Your task to perform on an android device: open chrome privacy settings Image 0: 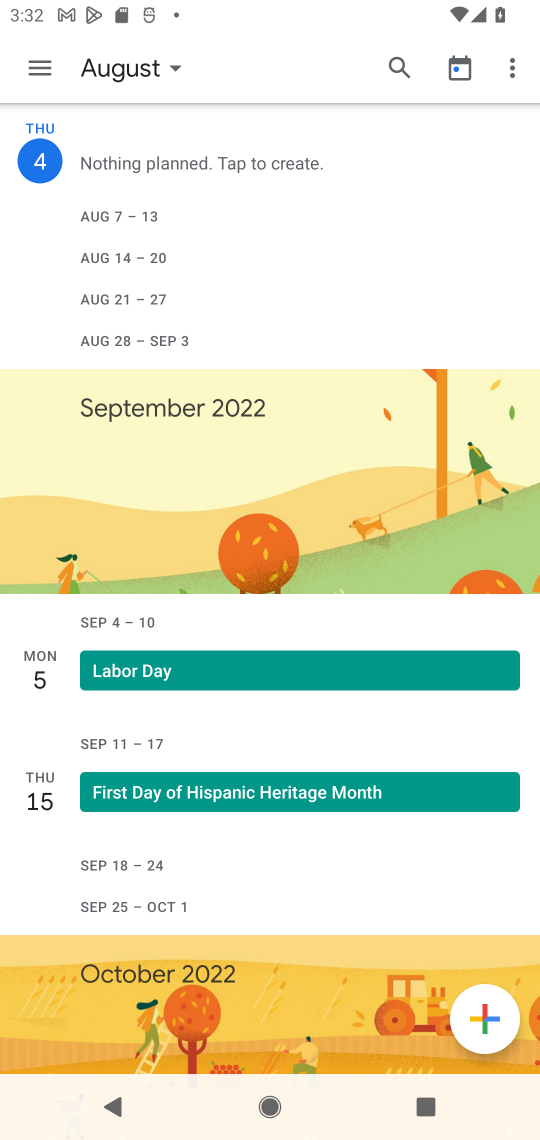
Step 0: press home button
Your task to perform on an android device: open chrome privacy settings Image 1: 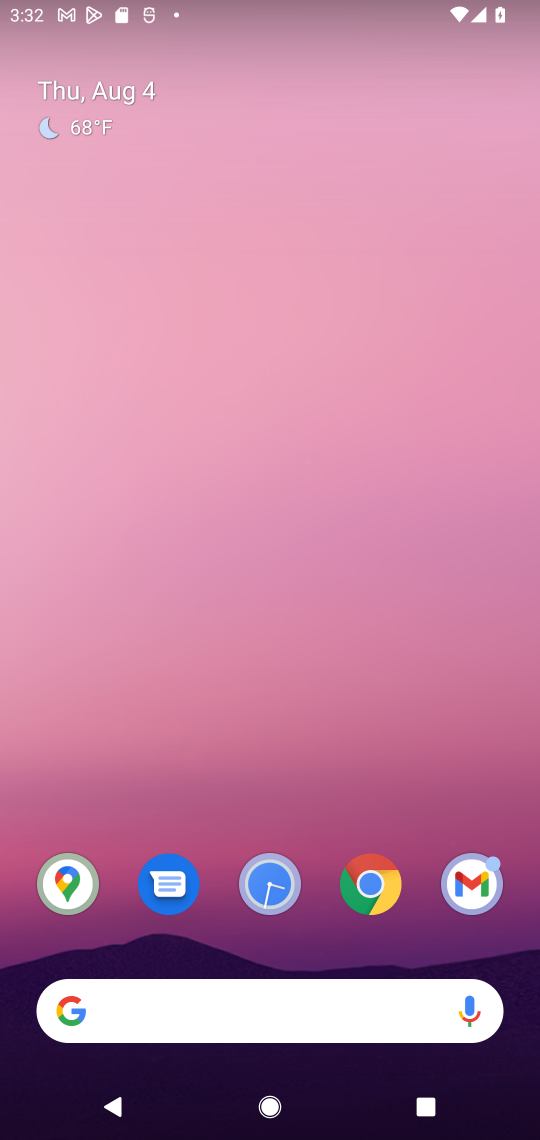
Step 1: click (375, 893)
Your task to perform on an android device: open chrome privacy settings Image 2: 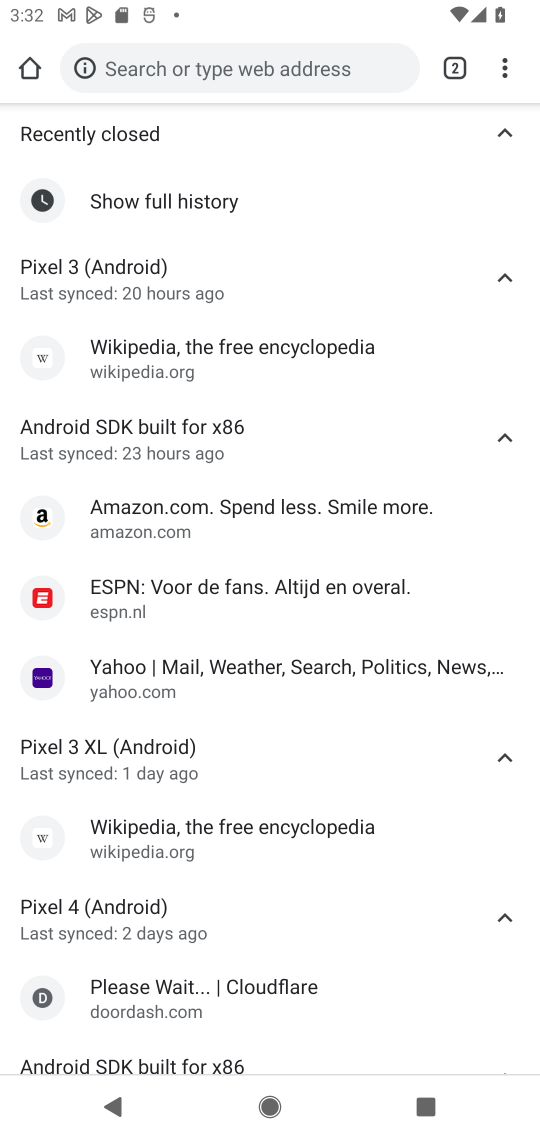
Step 2: click (499, 78)
Your task to perform on an android device: open chrome privacy settings Image 3: 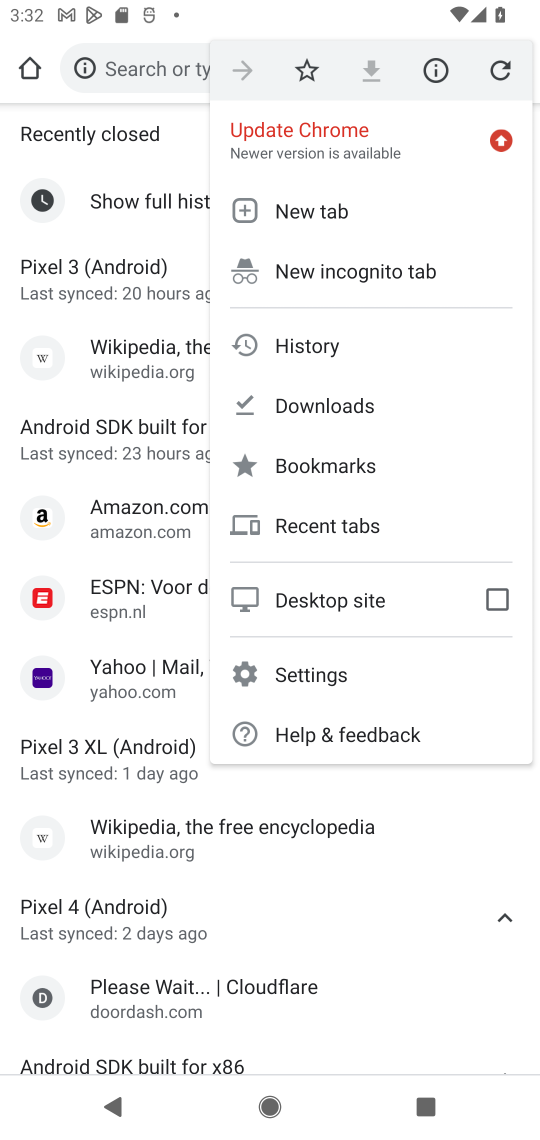
Step 3: click (290, 665)
Your task to perform on an android device: open chrome privacy settings Image 4: 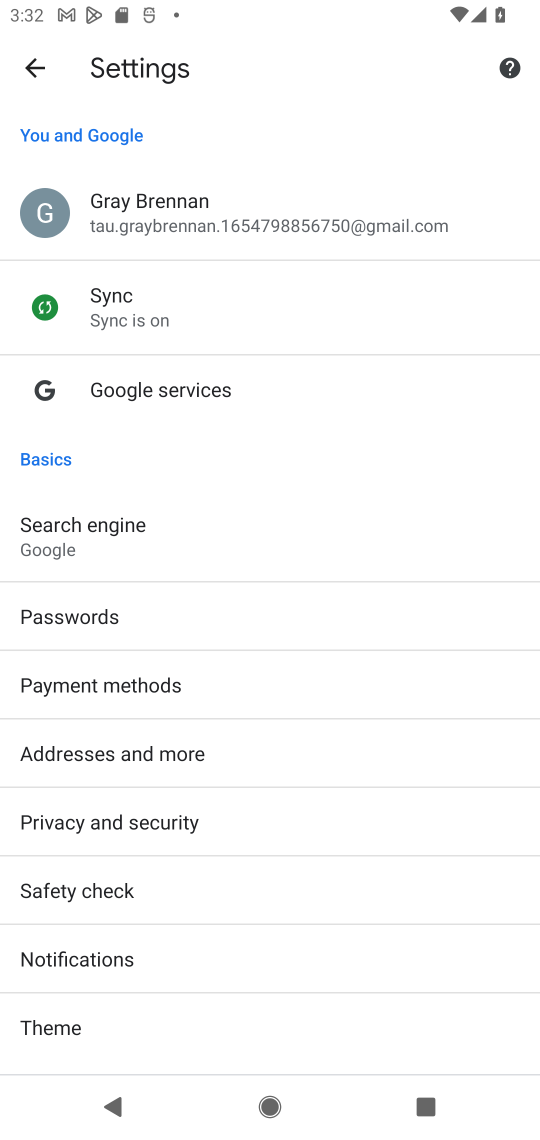
Step 4: click (122, 820)
Your task to perform on an android device: open chrome privacy settings Image 5: 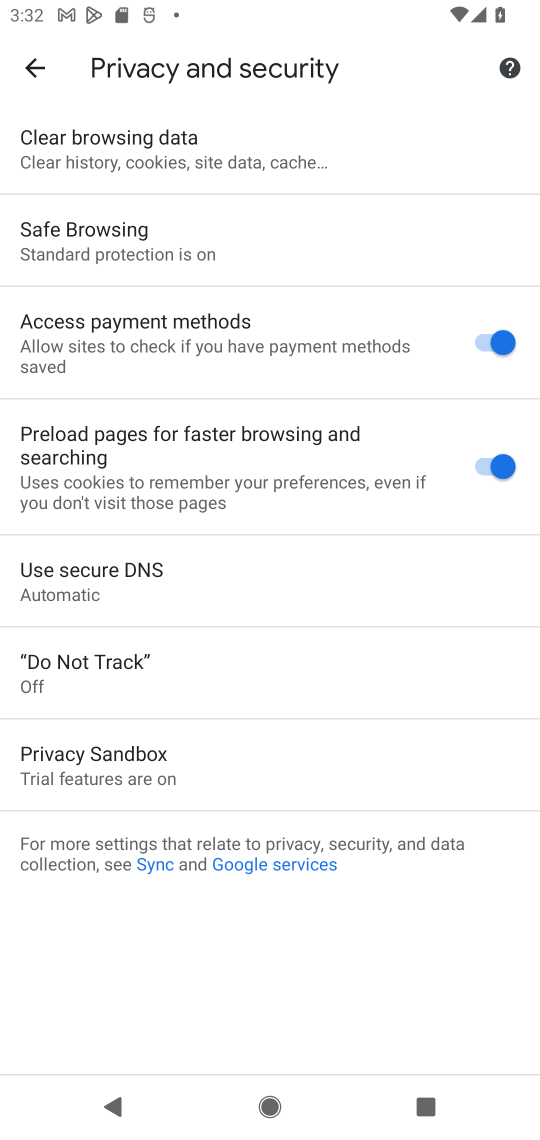
Step 5: task complete